Your task to perform on an android device: Open settings on Google Maps Image 0: 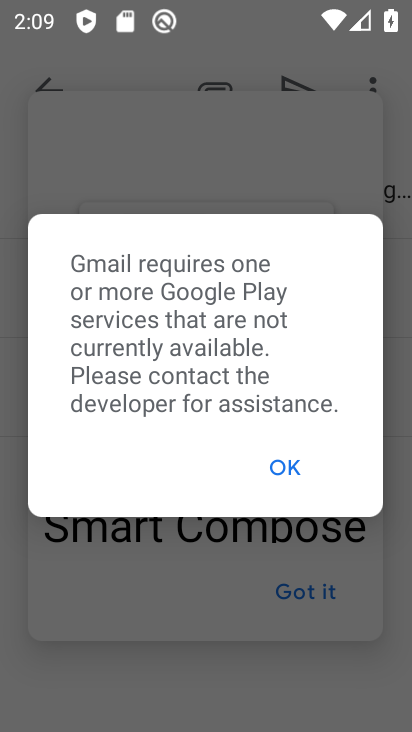
Step 0: press home button
Your task to perform on an android device: Open settings on Google Maps Image 1: 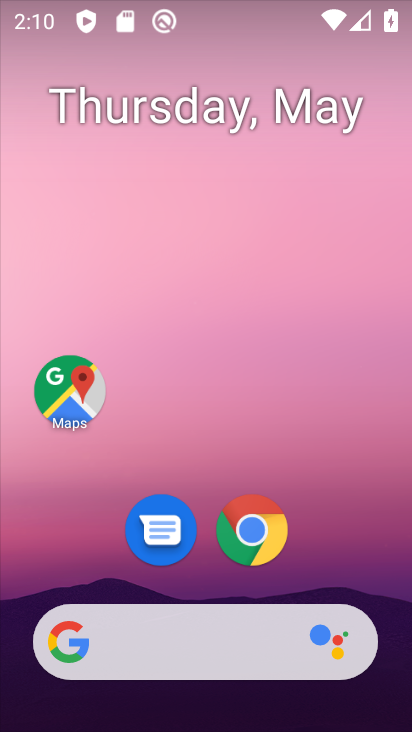
Step 1: click (68, 396)
Your task to perform on an android device: Open settings on Google Maps Image 2: 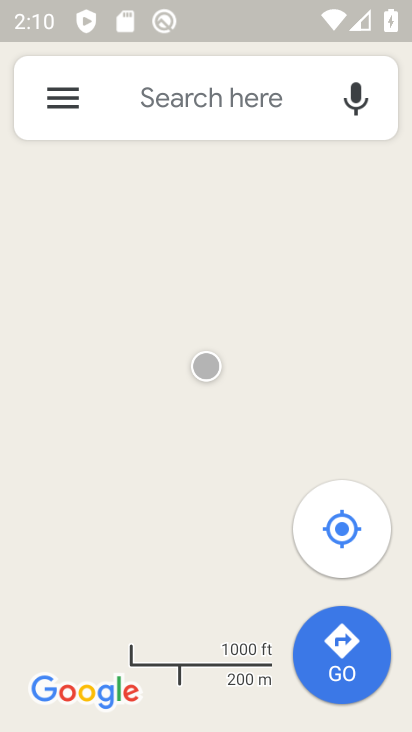
Step 2: click (58, 93)
Your task to perform on an android device: Open settings on Google Maps Image 3: 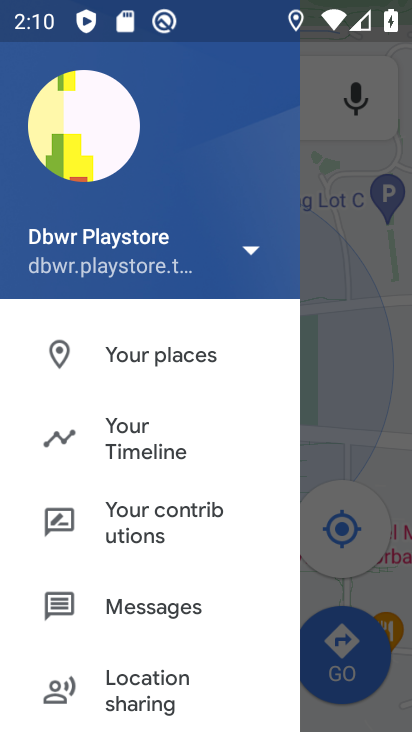
Step 3: drag from (144, 695) to (172, 198)
Your task to perform on an android device: Open settings on Google Maps Image 4: 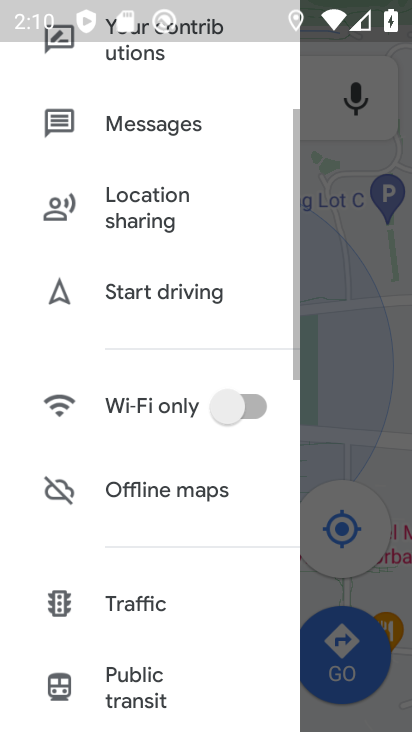
Step 4: drag from (170, 607) to (223, 97)
Your task to perform on an android device: Open settings on Google Maps Image 5: 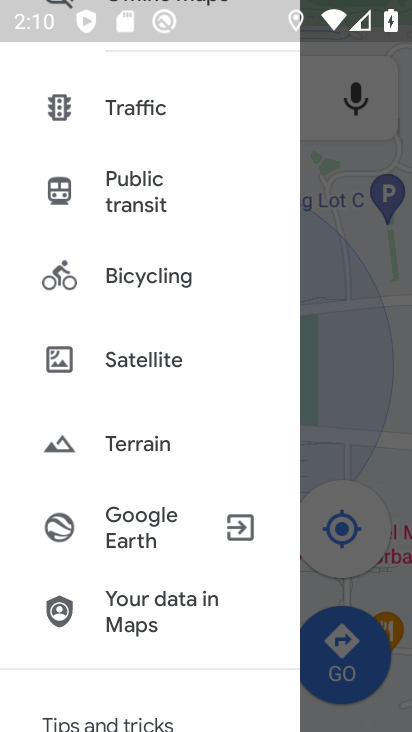
Step 5: drag from (152, 681) to (195, 83)
Your task to perform on an android device: Open settings on Google Maps Image 6: 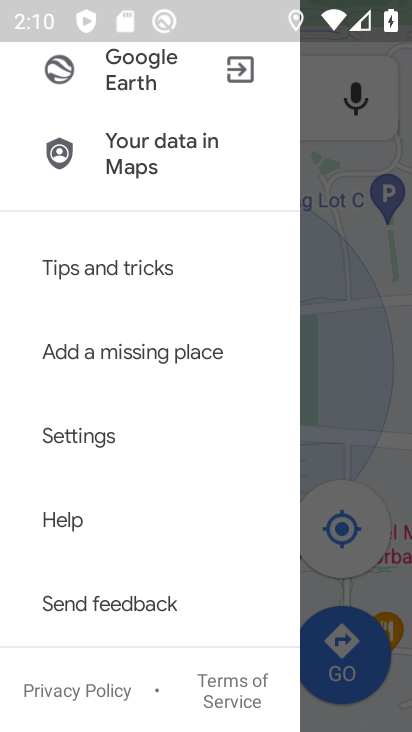
Step 6: click (75, 440)
Your task to perform on an android device: Open settings on Google Maps Image 7: 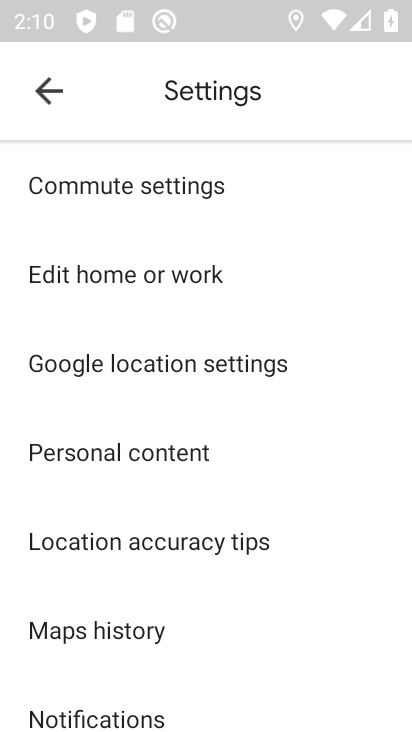
Step 7: task complete